Your task to perform on an android device: Go to calendar. Show me events next week Image 0: 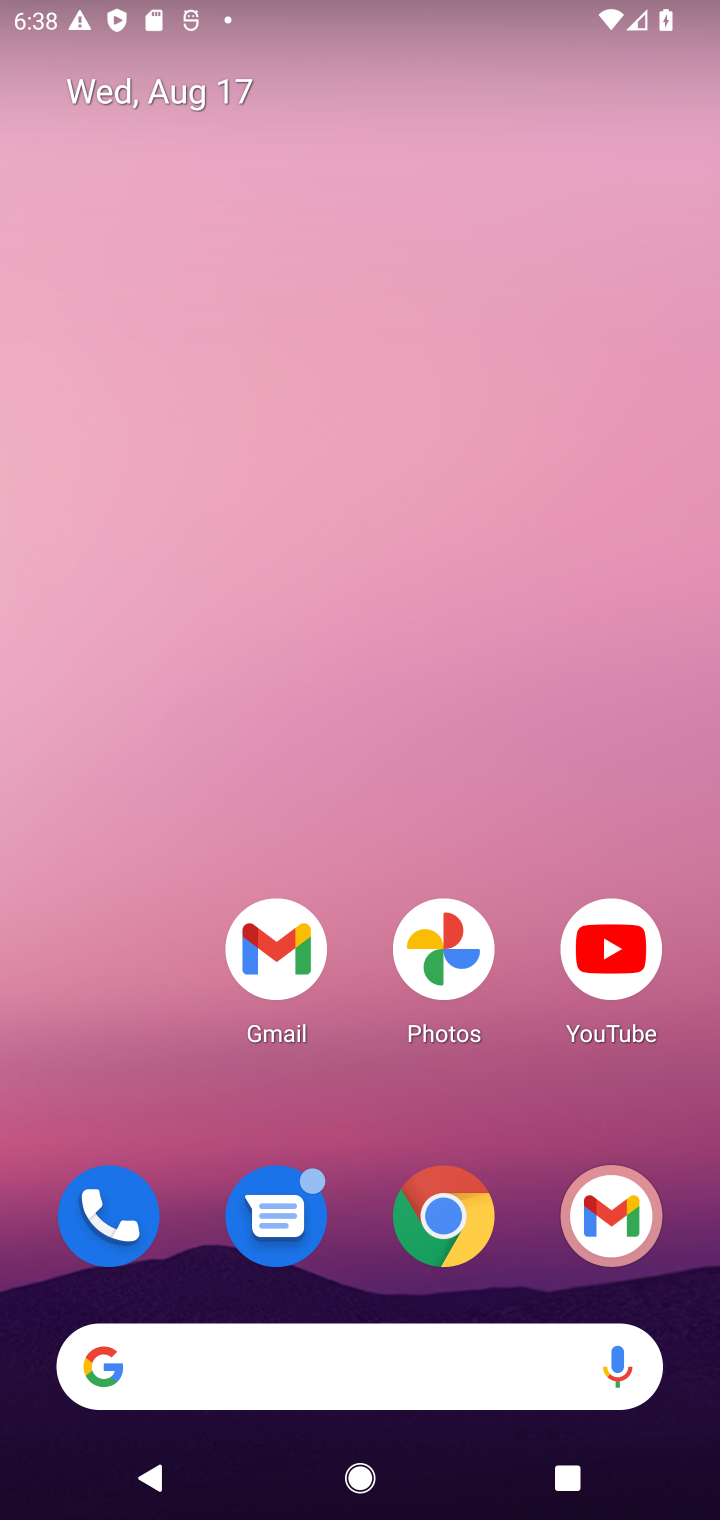
Step 0: drag from (533, 1094) to (619, 72)
Your task to perform on an android device: Go to calendar. Show me events next week Image 1: 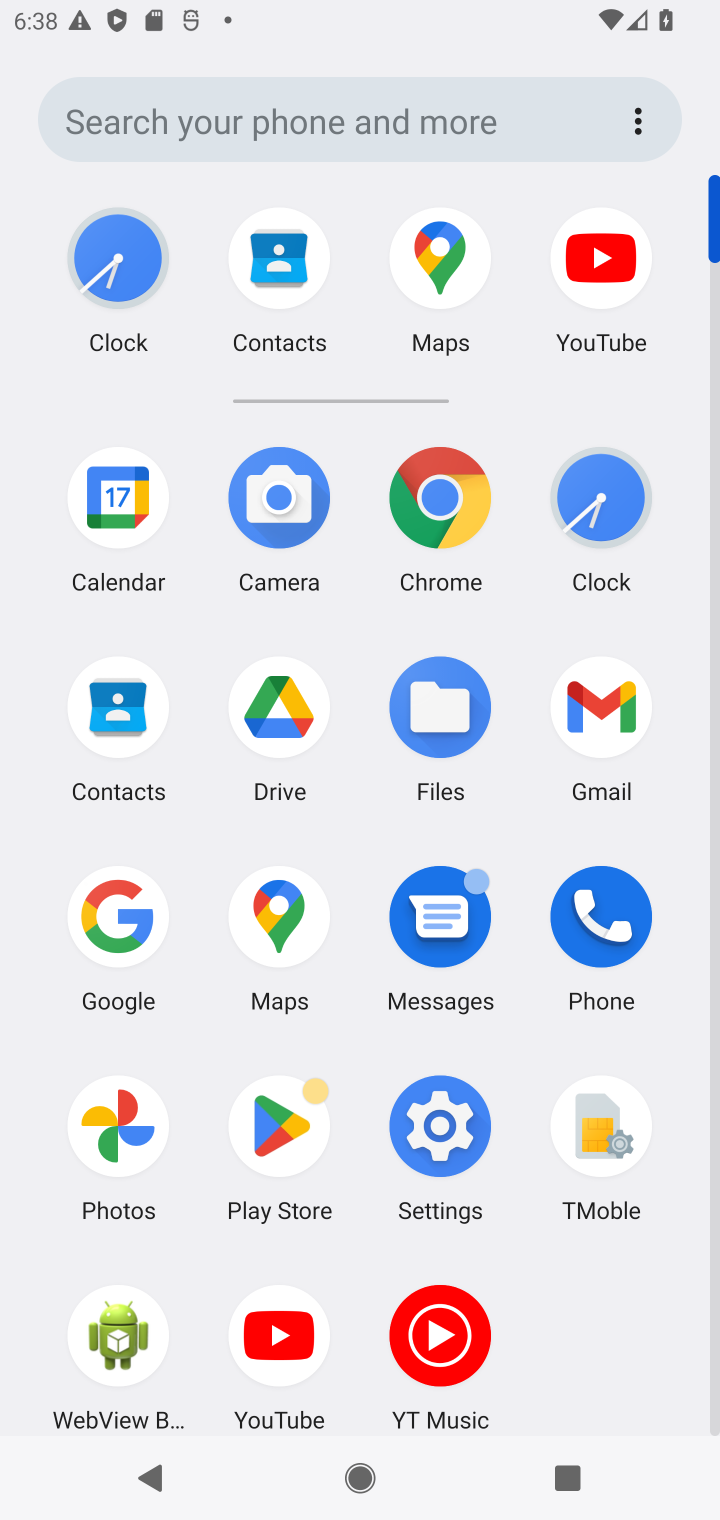
Step 1: click (125, 490)
Your task to perform on an android device: Go to calendar. Show me events next week Image 2: 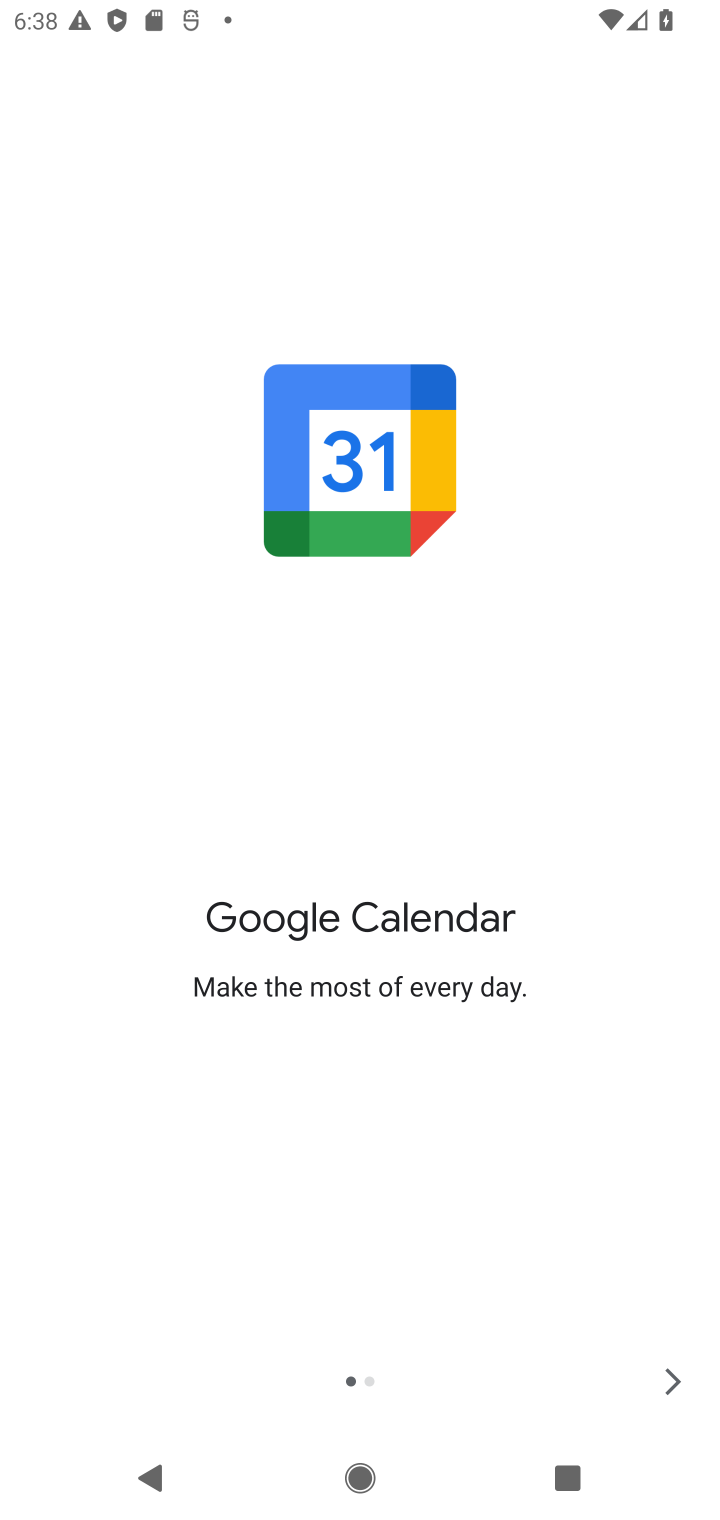
Step 2: click (665, 1376)
Your task to perform on an android device: Go to calendar. Show me events next week Image 3: 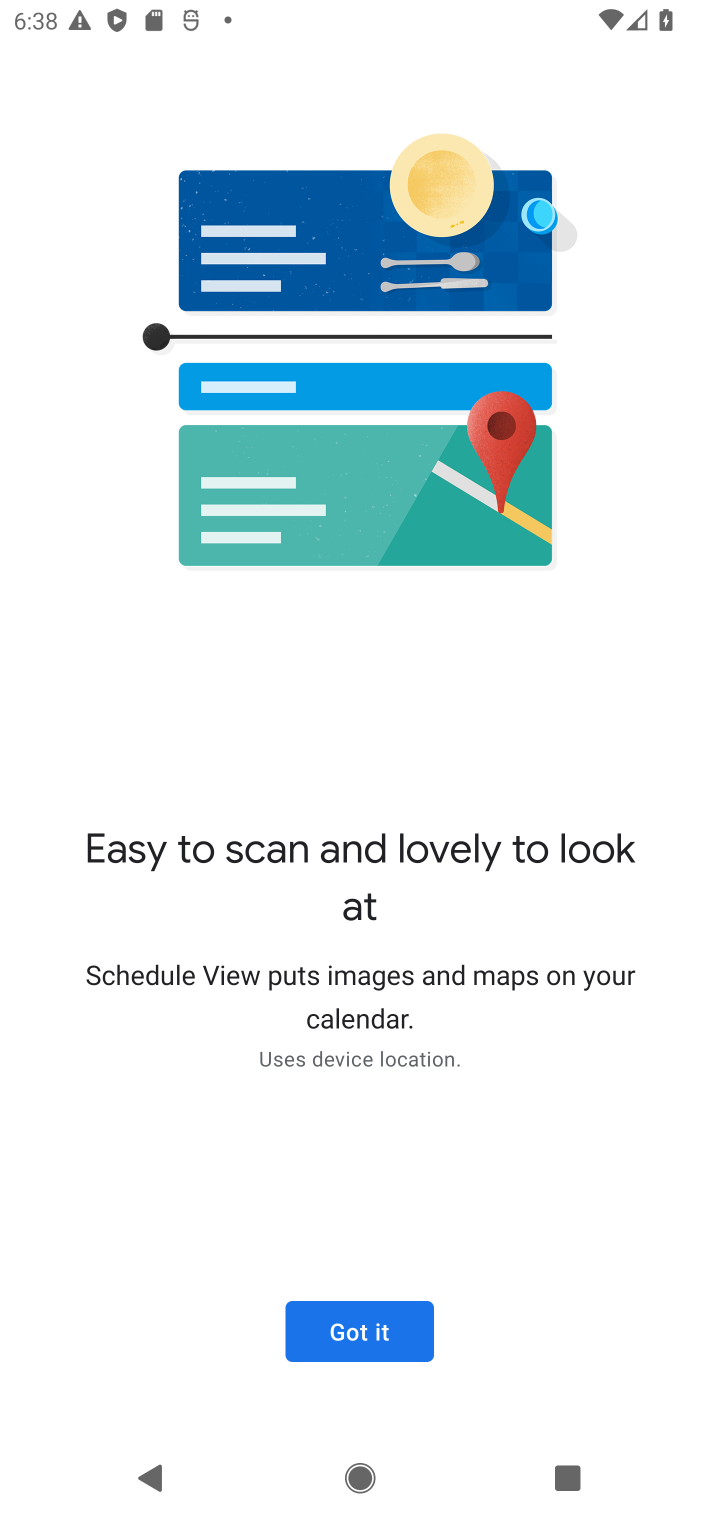
Step 3: click (665, 1376)
Your task to perform on an android device: Go to calendar. Show me events next week Image 4: 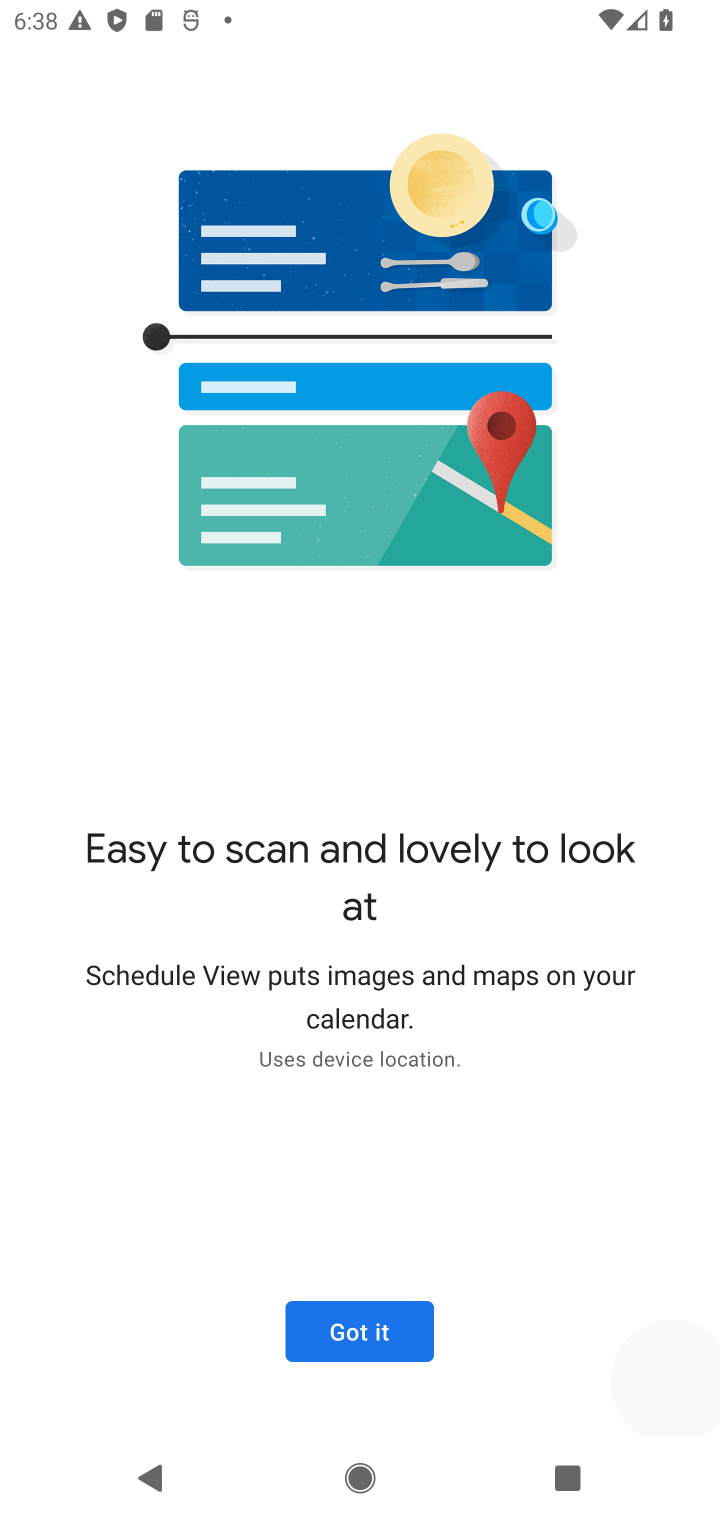
Step 4: click (352, 1320)
Your task to perform on an android device: Go to calendar. Show me events next week Image 5: 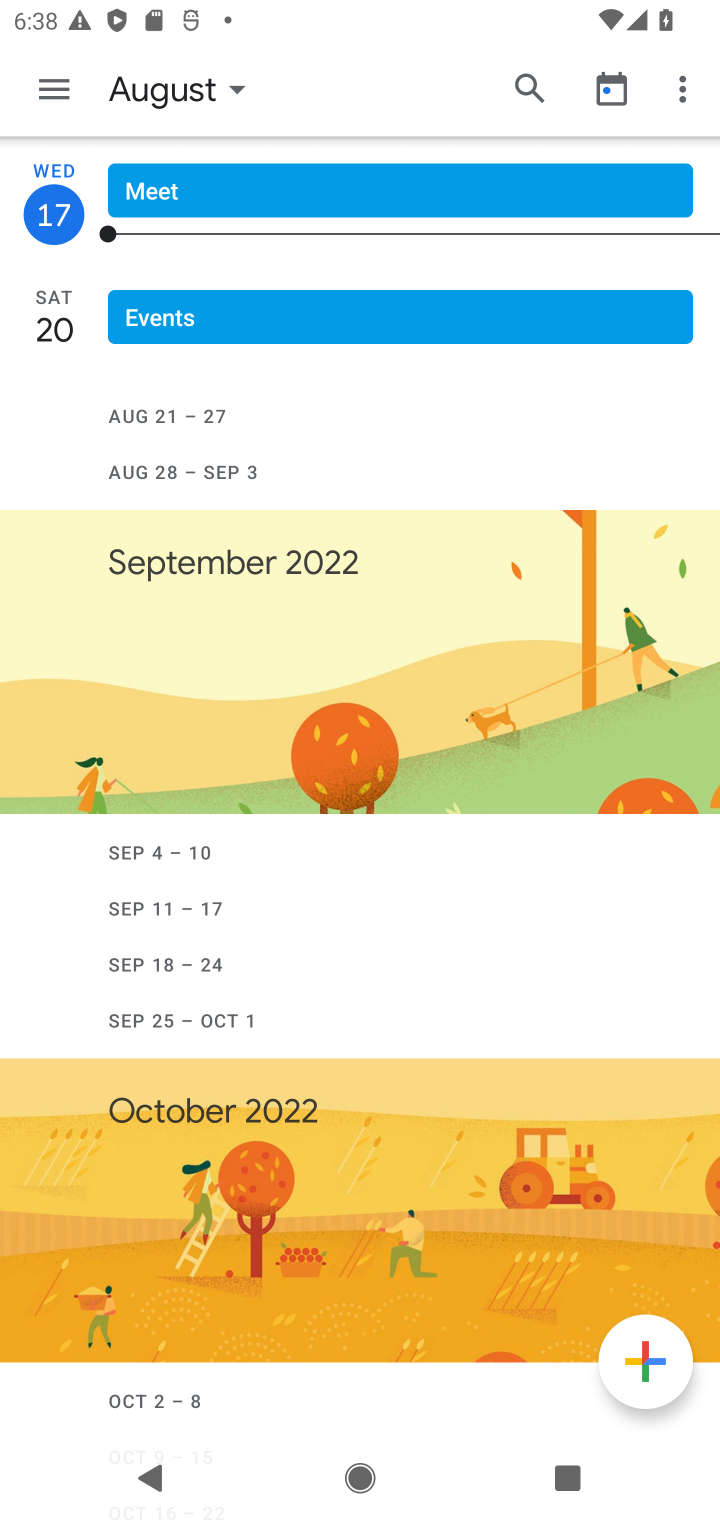
Step 5: click (154, 94)
Your task to perform on an android device: Go to calendar. Show me events next week Image 6: 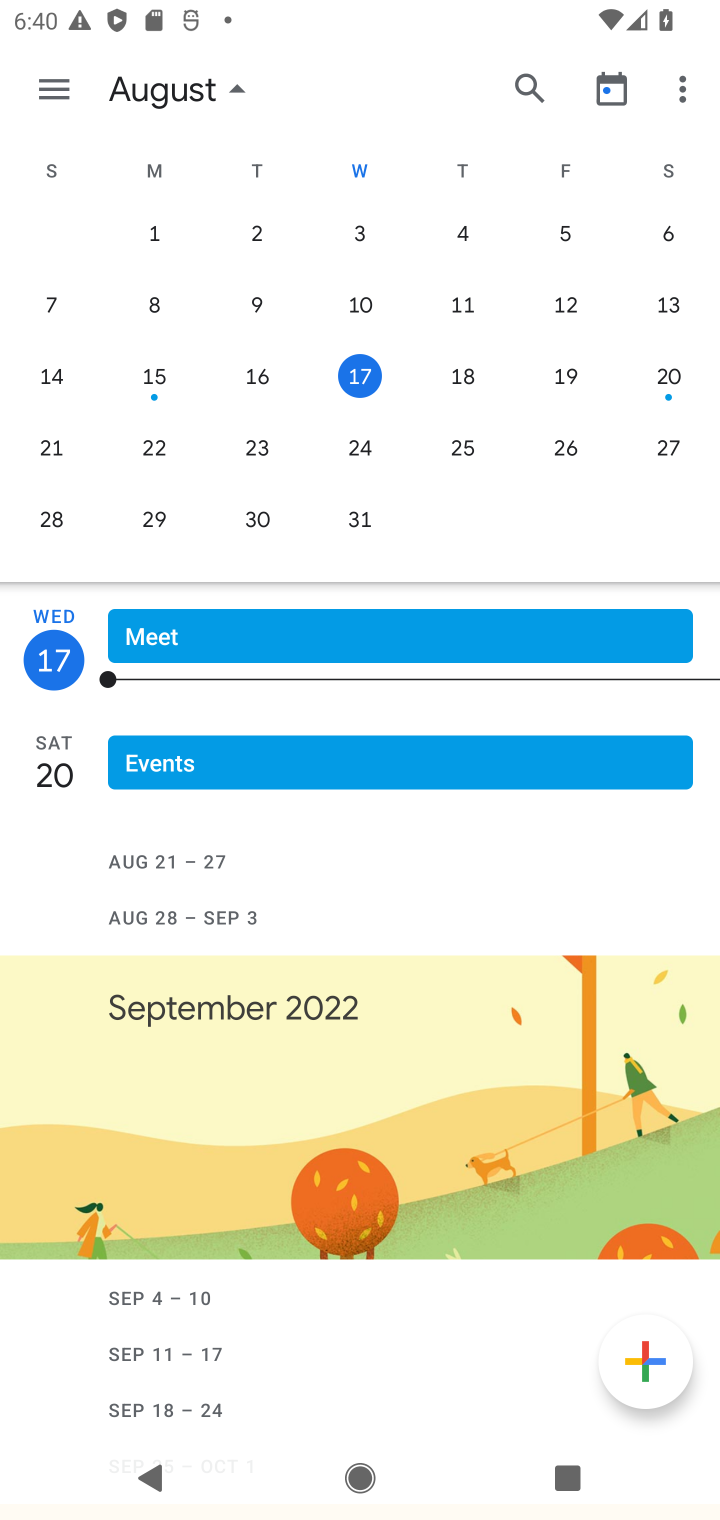
Step 6: click (450, 379)
Your task to perform on an android device: Go to calendar. Show me events next week Image 7: 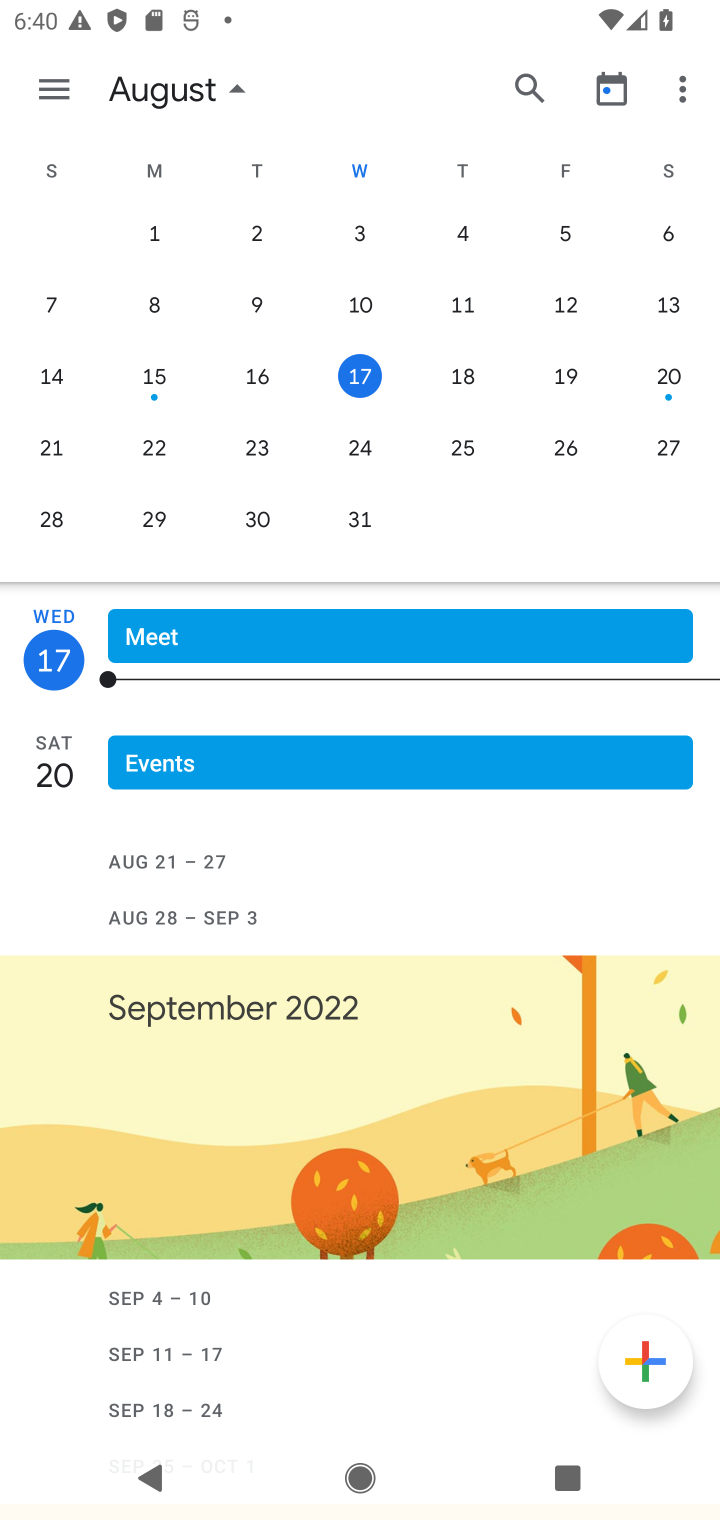
Step 7: click (469, 437)
Your task to perform on an android device: Go to calendar. Show me events next week Image 8: 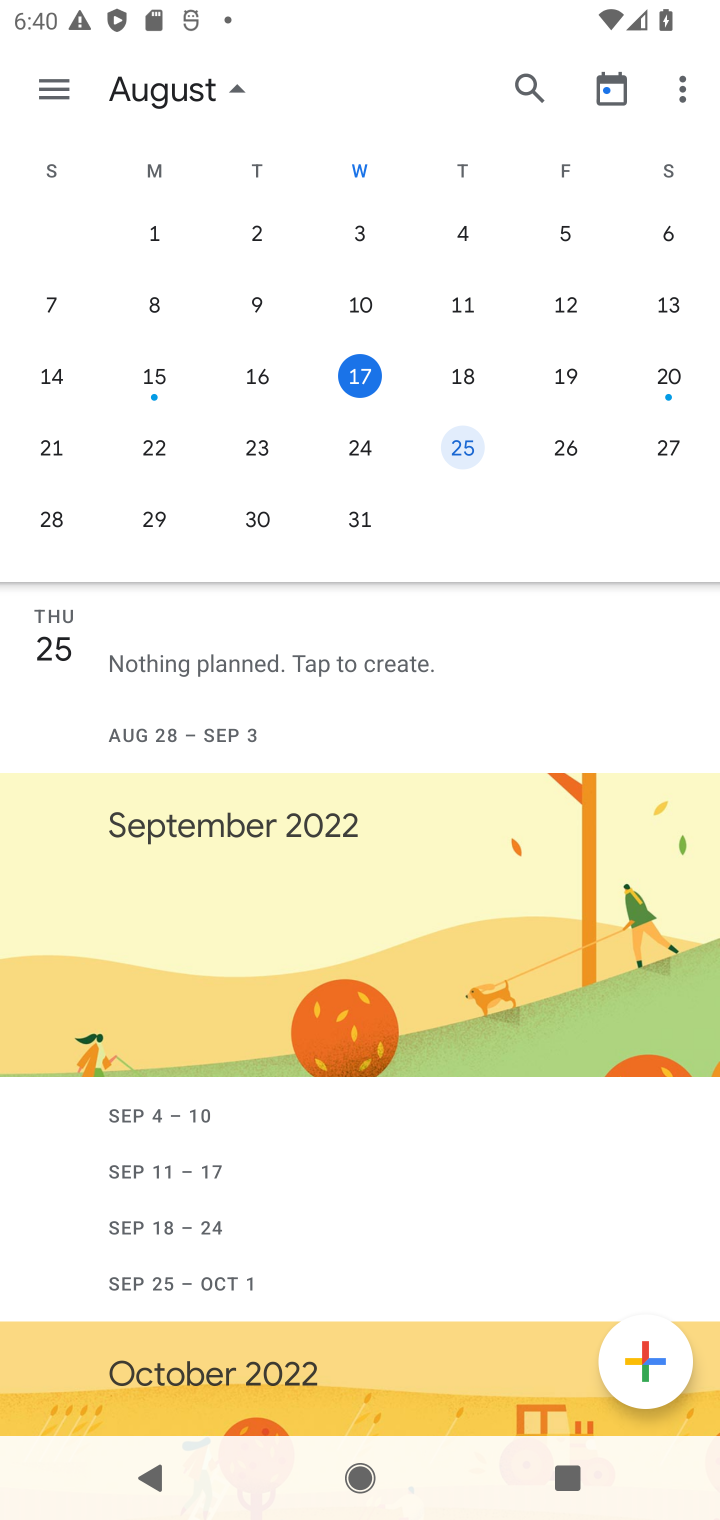
Step 8: task complete